Your task to perform on an android device: toggle wifi Image 0: 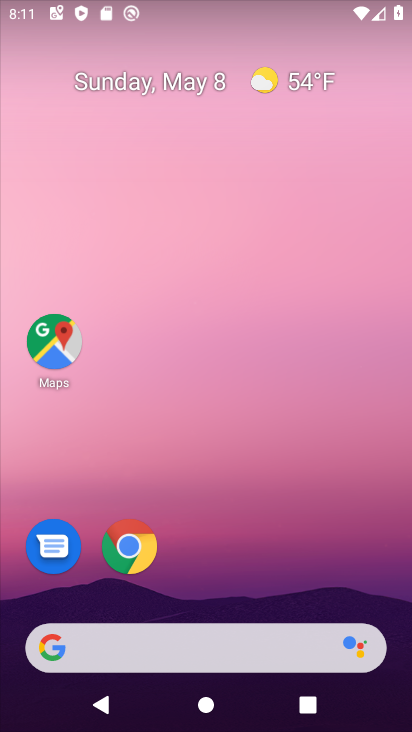
Step 0: drag from (385, 597) to (359, 195)
Your task to perform on an android device: toggle wifi Image 1: 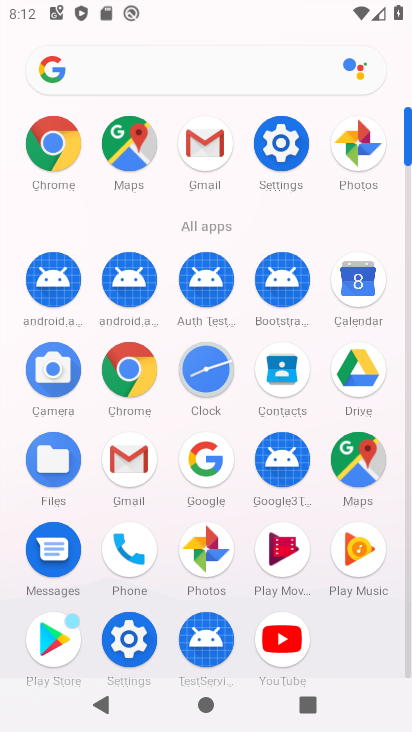
Step 1: click (133, 637)
Your task to perform on an android device: toggle wifi Image 2: 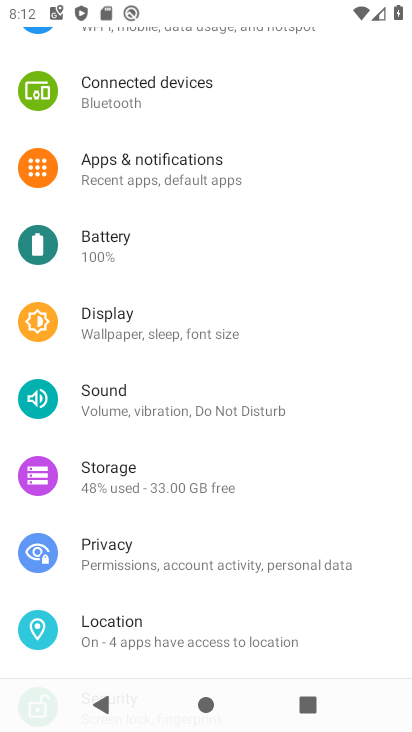
Step 2: drag from (316, 115) to (345, 467)
Your task to perform on an android device: toggle wifi Image 3: 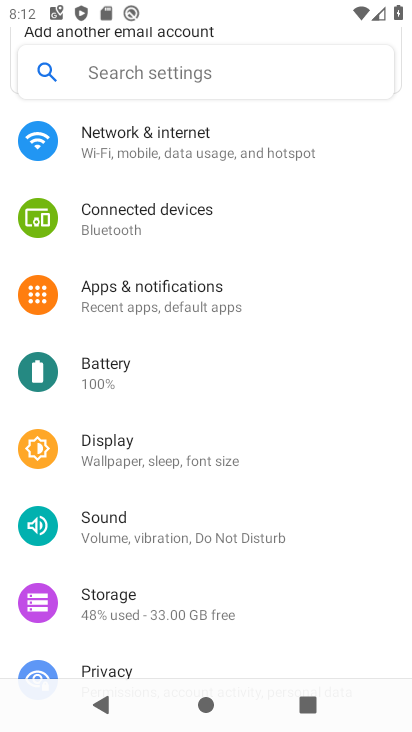
Step 3: drag from (367, 155) to (370, 507)
Your task to perform on an android device: toggle wifi Image 4: 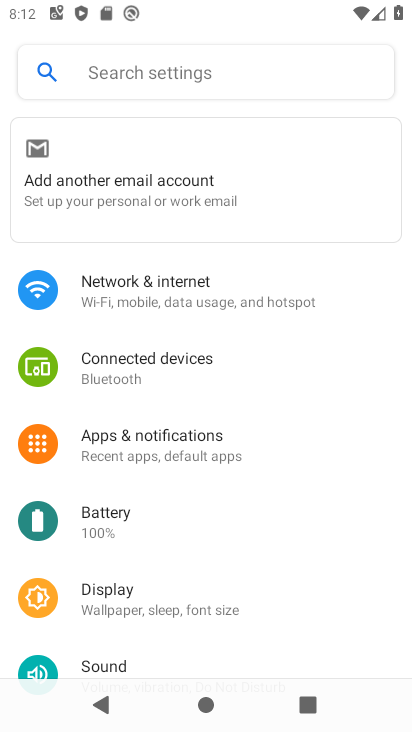
Step 4: click (158, 294)
Your task to perform on an android device: toggle wifi Image 5: 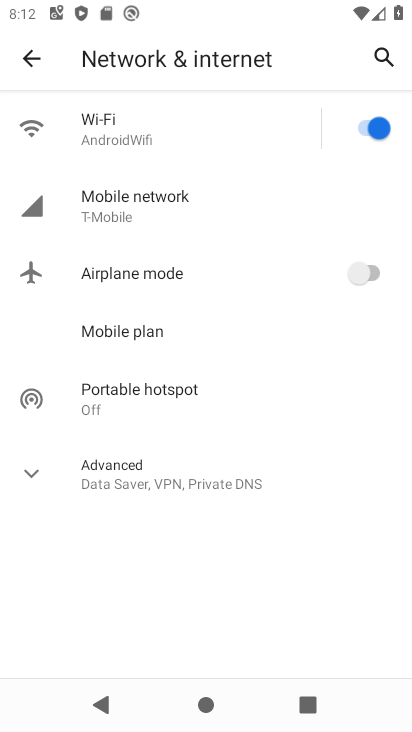
Step 5: click (359, 130)
Your task to perform on an android device: toggle wifi Image 6: 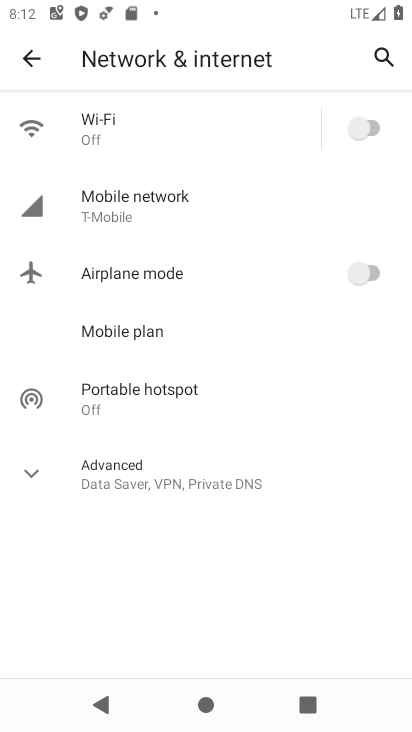
Step 6: task complete